Your task to perform on an android device: Go to Google maps Image 0: 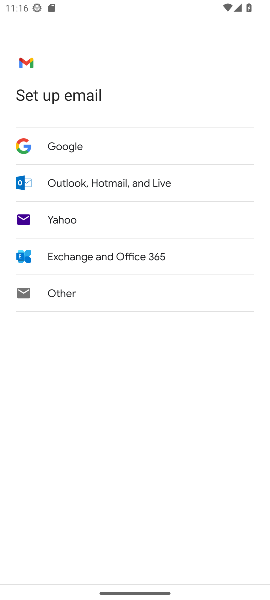
Step 0: press back button
Your task to perform on an android device: Go to Google maps Image 1: 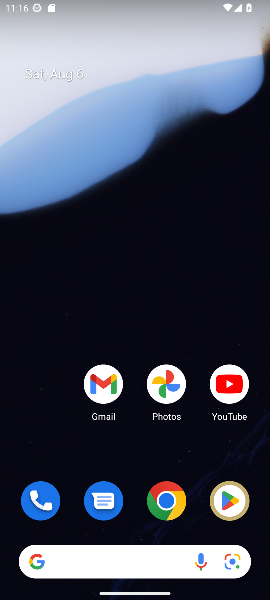
Step 1: drag from (134, 361) to (145, 151)
Your task to perform on an android device: Go to Google maps Image 2: 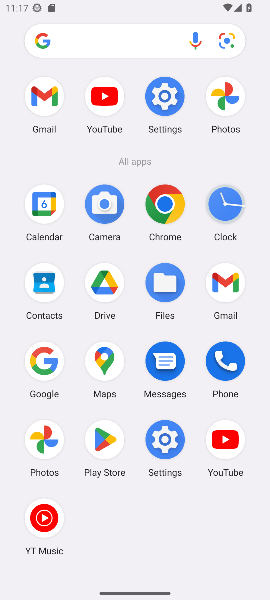
Step 2: click (110, 364)
Your task to perform on an android device: Go to Google maps Image 3: 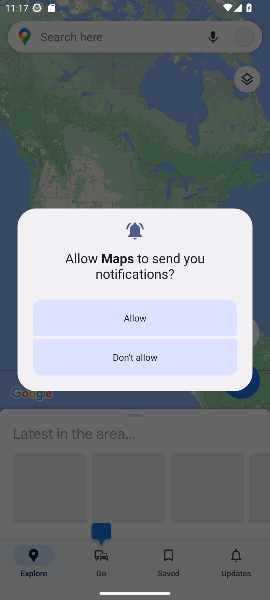
Step 3: task complete